Your task to perform on an android device: Open Google Chrome Image 0: 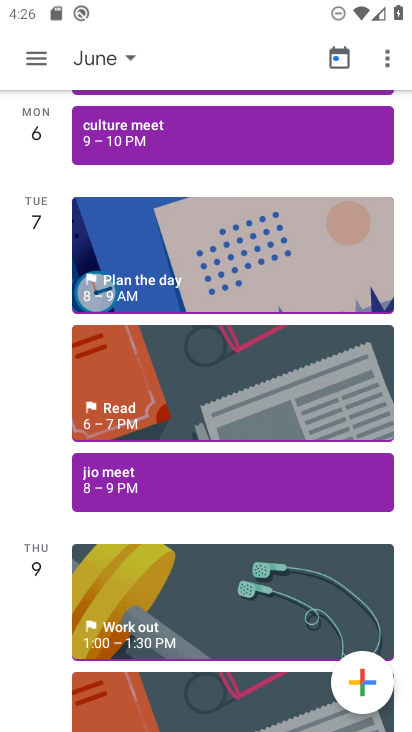
Step 0: press home button
Your task to perform on an android device: Open Google Chrome Image 1: 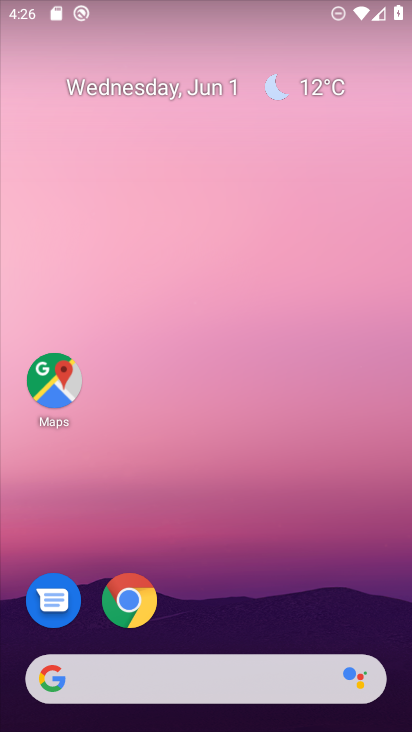
Step 1: click (126, 595)
Your task to perform on an android device: Open Google Chrome Image 2: 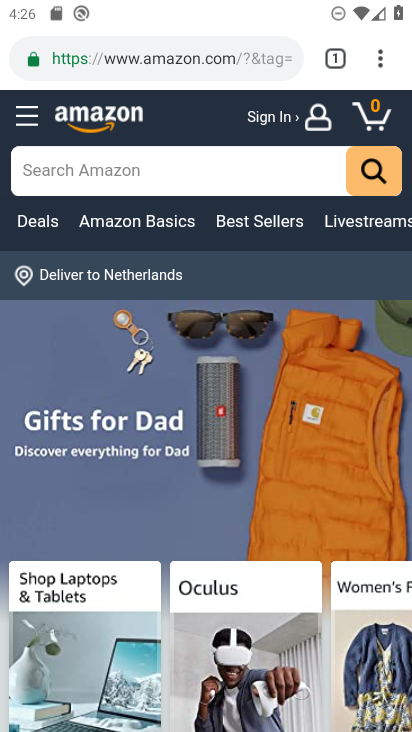
Step 2: task complete